Your task to perform on an android device: turn on priority inbox in the gmail app Image 0: 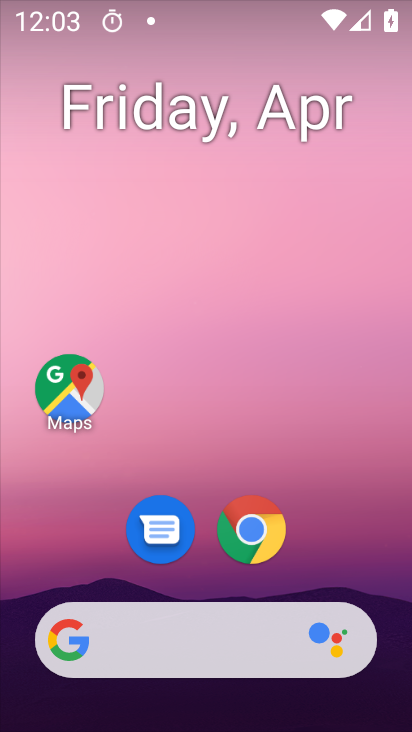
Step 0: drag from (305, 581) to (317, 259)
Your task to perform on an android device: turn on priority inbox in the gmail app Image 1: 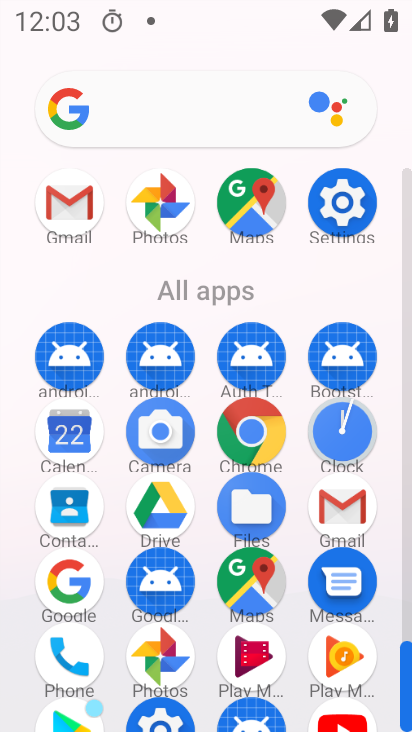
Step 1: click (325, 505)
Your task to perform on an android device: turn on priority inbox in the gmail app Image 2: 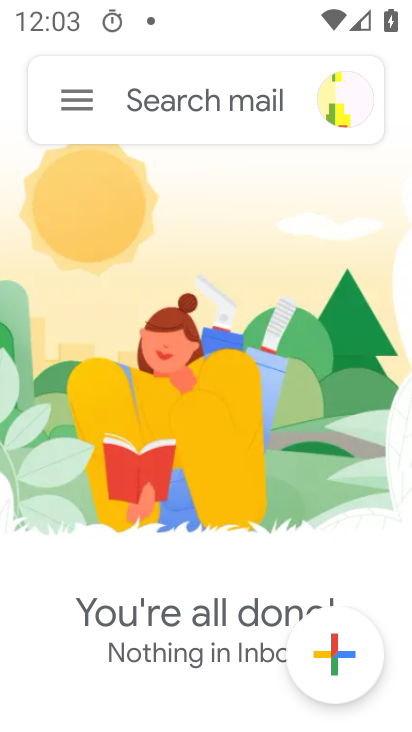
Step 2: click (70, 108)
Your task to perform on an android device: turn on priority inbox in the gmail app Image 3: 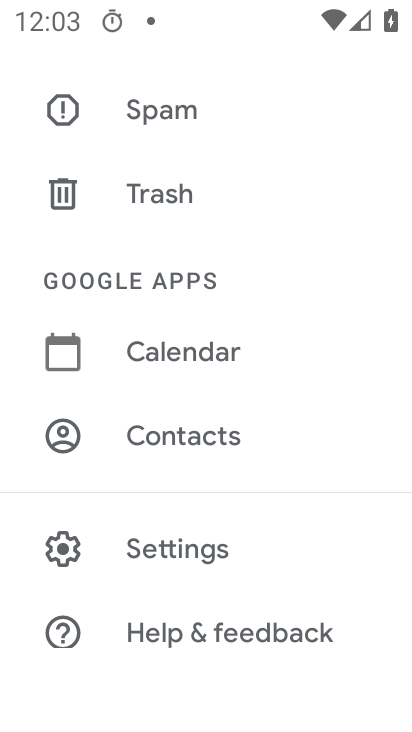
Step 3: click (165, 565)
Your task to perform on an android device: turn on priority inbox in the gmail app Image 4: 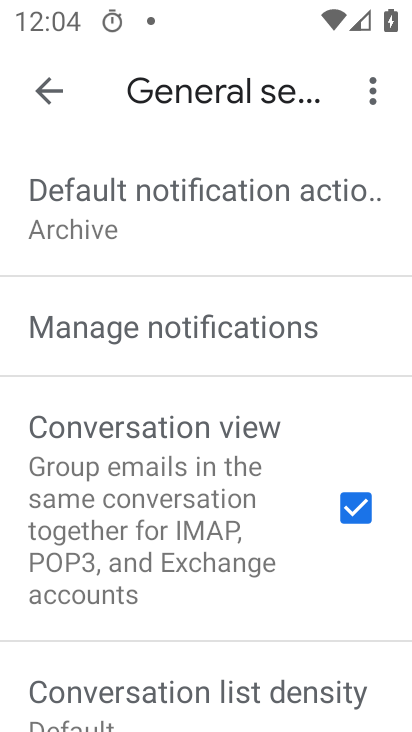
Step 4: click (47, 82)
Your task to perform on an android device: turn on priority inbox in the gmail app Image 5: 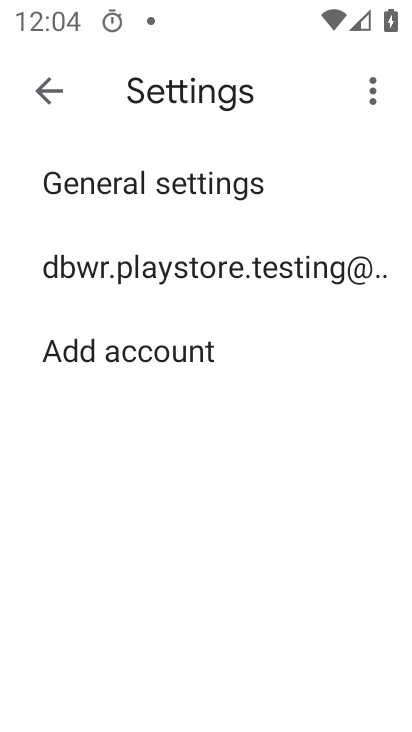
Step 5: click (153, 266)
Your task to perform on an android device: turn on priority inbox in the gmail app Image 6: 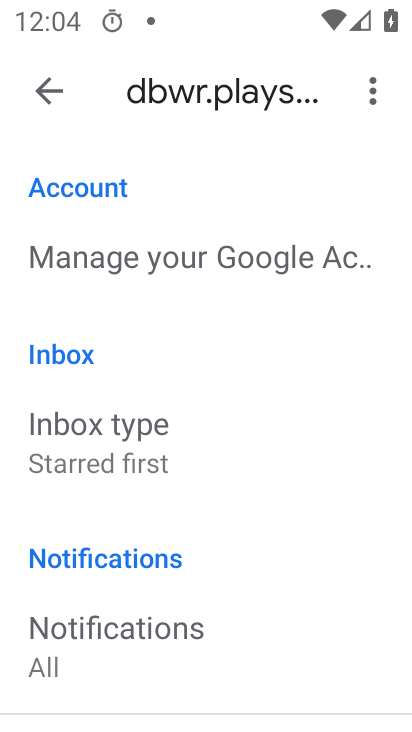
Step 6: click (140, 461)
Your task to perform on an android device: turn on priority inbox in the gmail app Image 7: 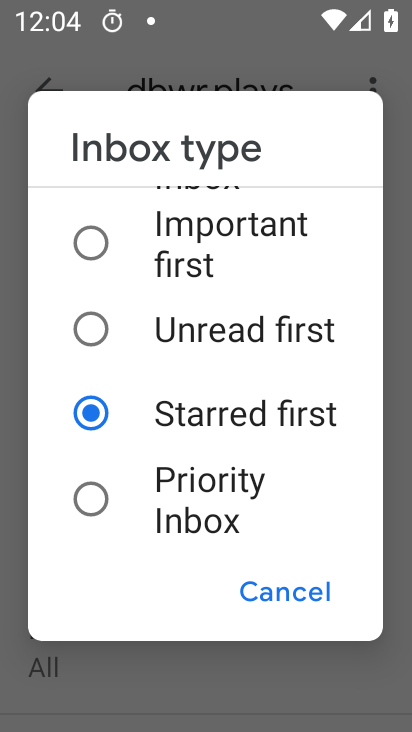
Step 7: click (100, 503)
Your task to perform on an android device: turn on priority inbox in the gmail app Image 8: 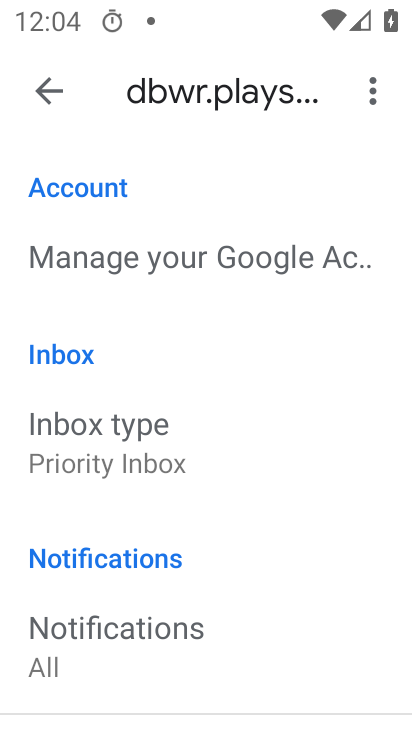
Step 8: task complete